Your task to perform on an android device: Open the map Image 0: 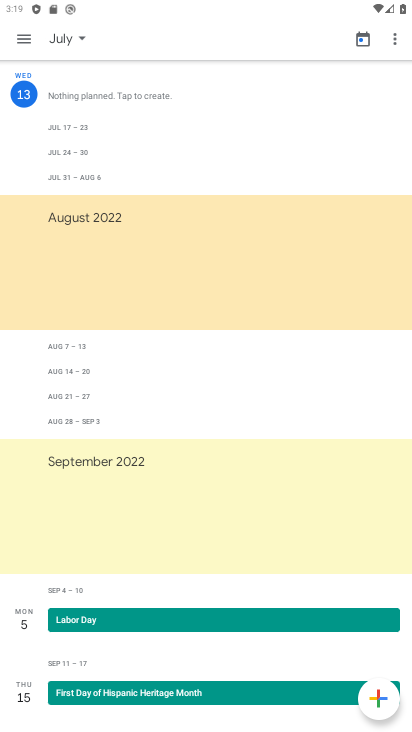
Step 0: drag from (195, 647) to (261, 102)
Your task to perform on an android device: Open the map Image 1: 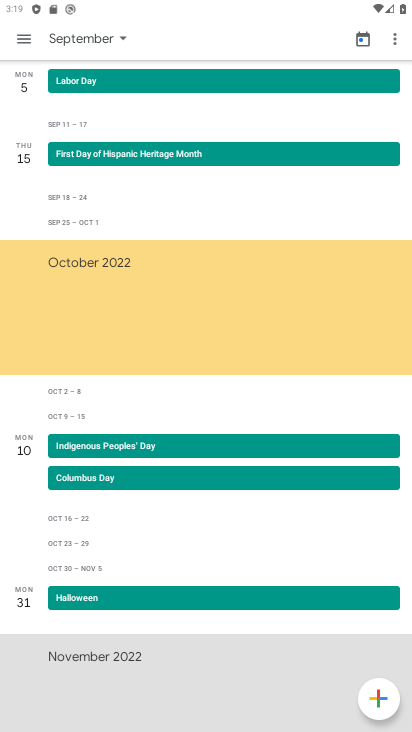
Step 1: drag from (164, 545) to (236, 4)
Your task to perform on an android device: Open the map Image 2: 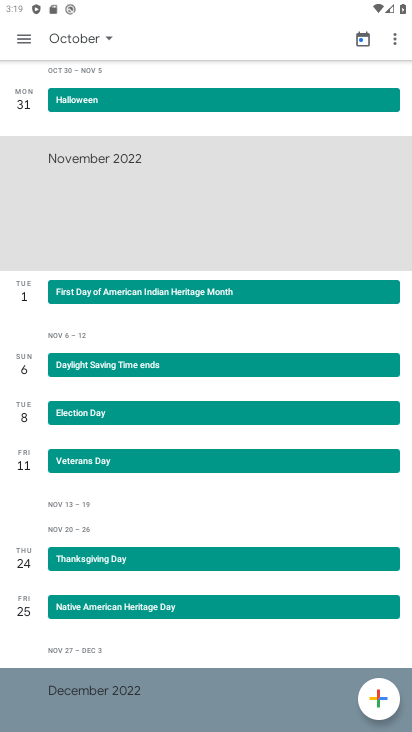
Step 2: drag from (242, 512) to (226, 234)
Your task to perform on an android device: Open the map Image 3: 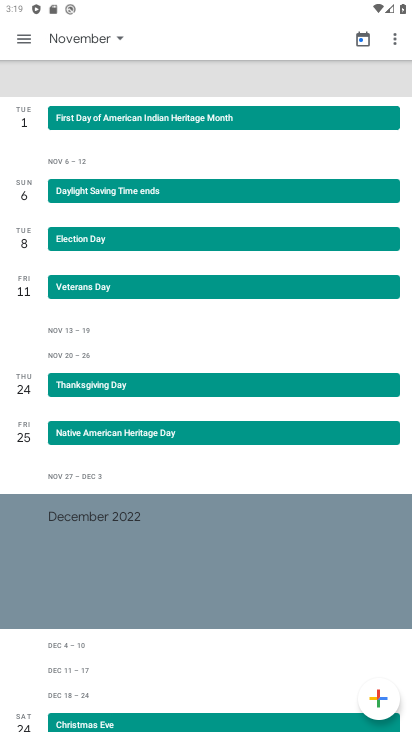
Step 3: drag from (241, 262) to (400, 573)
Your task to perform on an android device: Open the map Image 4: 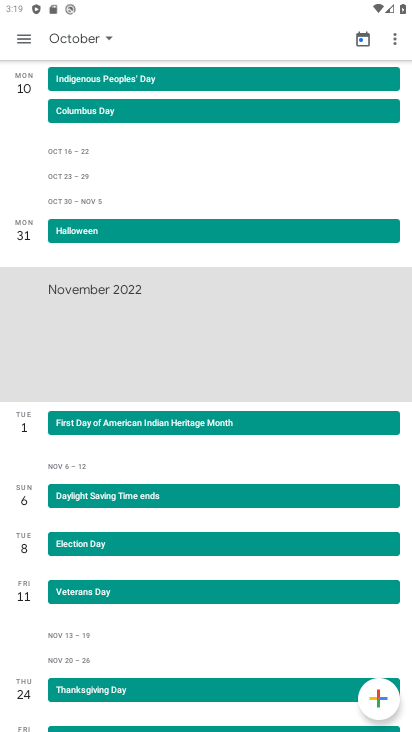
Step 4: press home button
Your task to perform on an android device: Open the map Image 5: 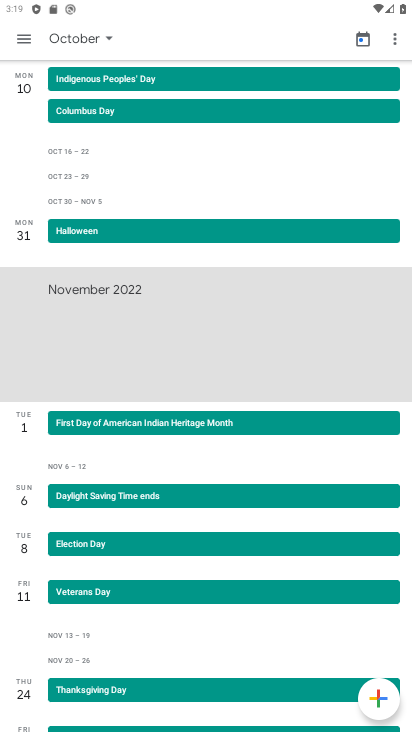
Step 5: click (395, 448)
Your task to perform on an android device: Open the map Image 6: 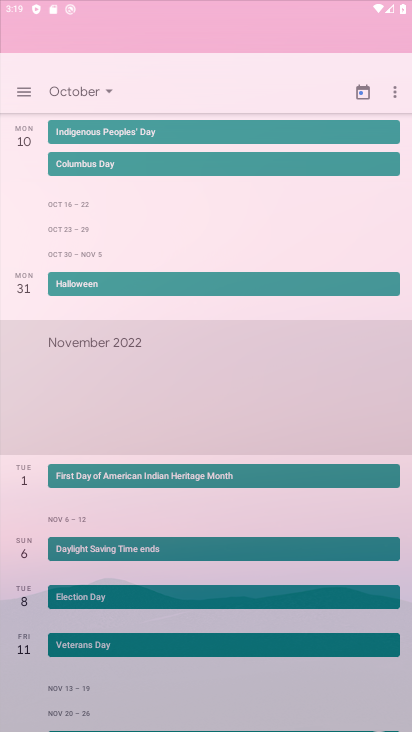
Step 6: drag from (128, 599) to (199, 155)
Your task to perform on an android device: Open the map Image 7: 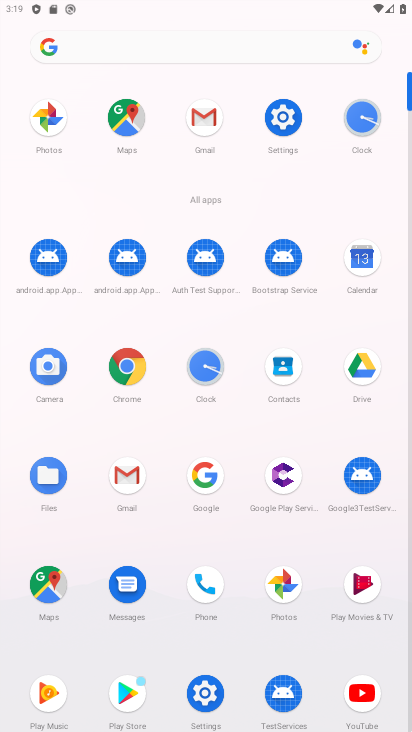
Step 7: click (123, 119)
Your task to perform on an android device: Open the map Image 8: 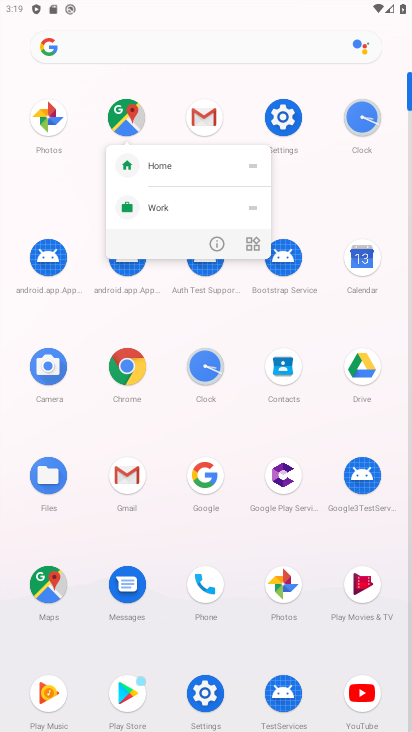
Step 8: click (215, 238)
Your task to perform on an android device: Open the map Image 9: 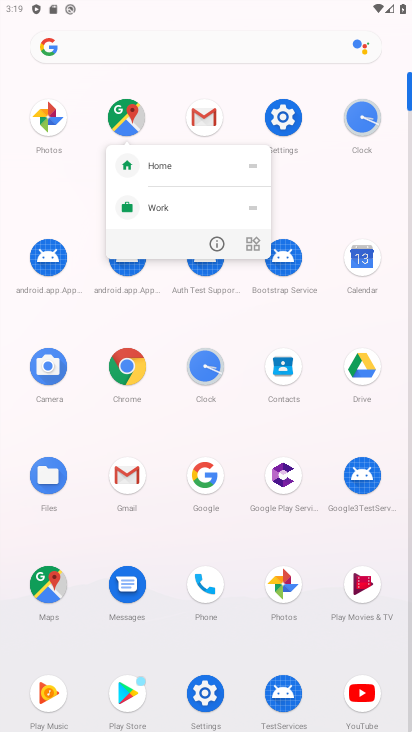
Step 9: click (215, 238)
Your task to perform on an android device: Open the map Image 10: 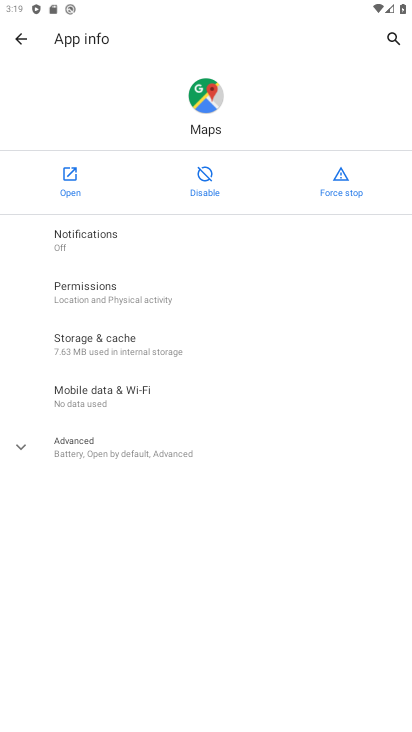
Step 10: click (61, 146)
Your task to perform on an android device: Open the map Image 11: 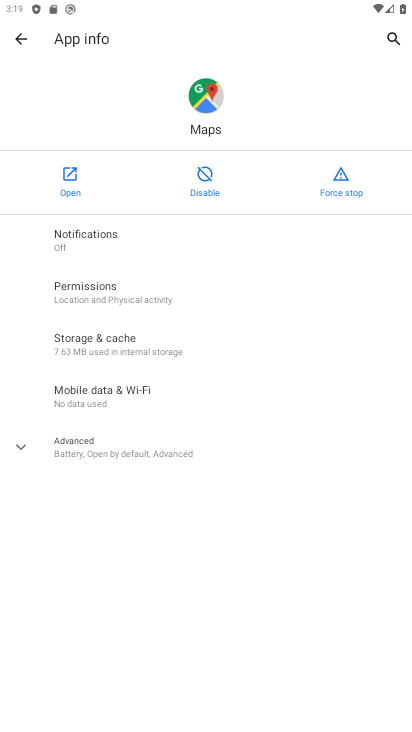
Step 11: click (70, 160)
Your task to perform on an android device: Open the map Image 12: 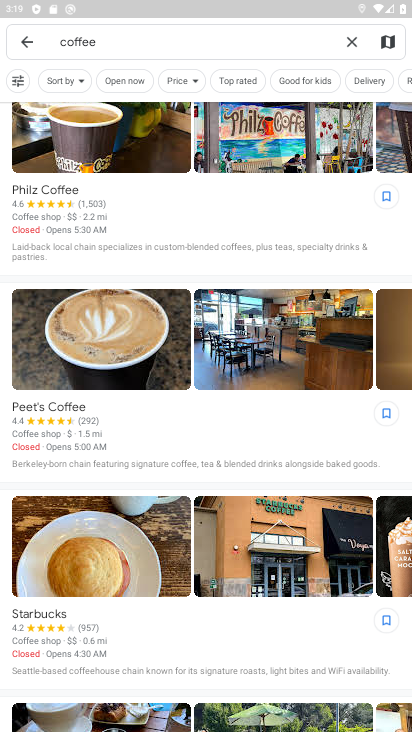
Step 12: click (26, 46)
Your task to perform on an android device: Open the map Image 13: 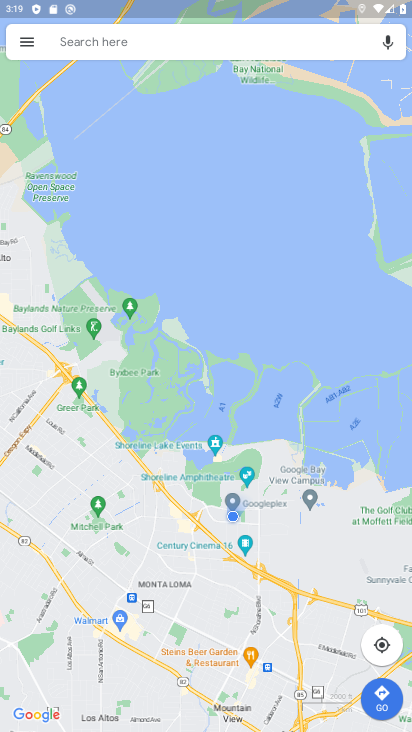
Step 13: task complete